Your task to perform on an android device: Is it going to rain today? Image 0: 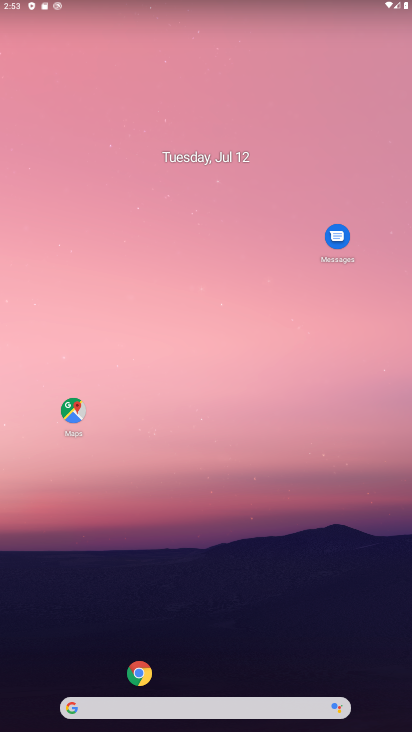
Step 0: click (210, 712)
Your task to perform on an android device: Is it going to rain today? Image 1: 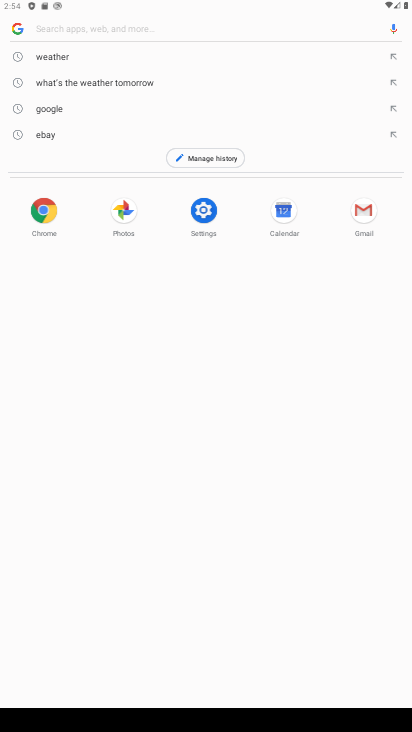
Step 1: type "Is it going to rain today?"
Your task to perform on an android device: Is it going to rain today? Image 2: 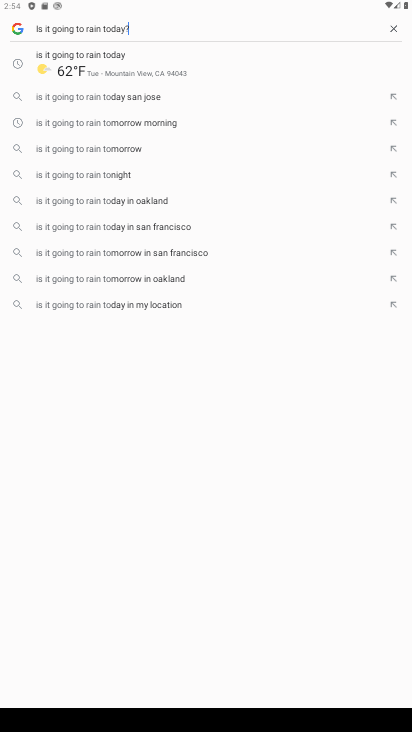
Step 2: type ""
Your task to perform on an android device: Is it going to rain today? Image 3: 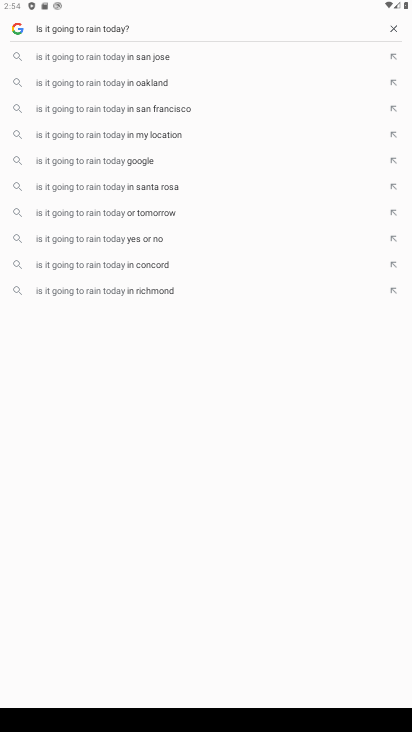
Step 3: type ""
Your task to perform on an android device: Is it going to rain today? Image 4: 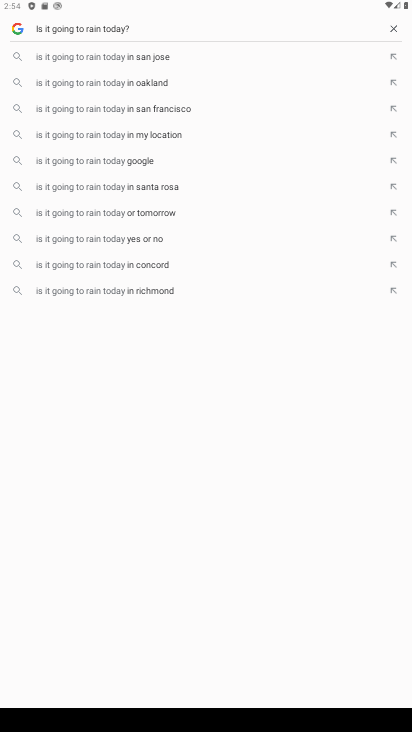
Step 4: type ""
Your task to perform on an android device: Is it going to rain today? Image 5: 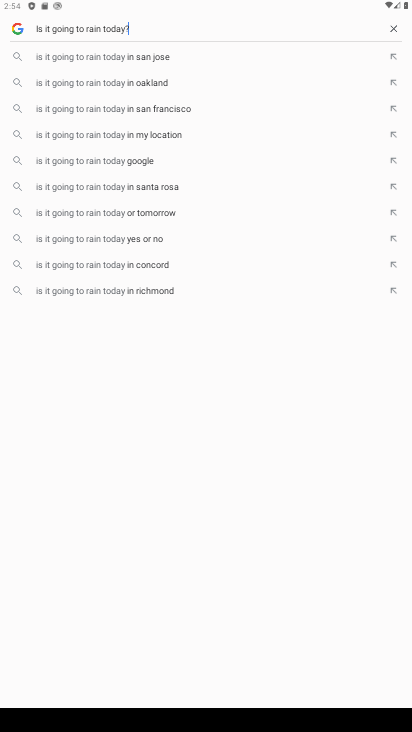
Step 5: task complete